Your task to perform on an android device: change the upload size in google photos Image 0: 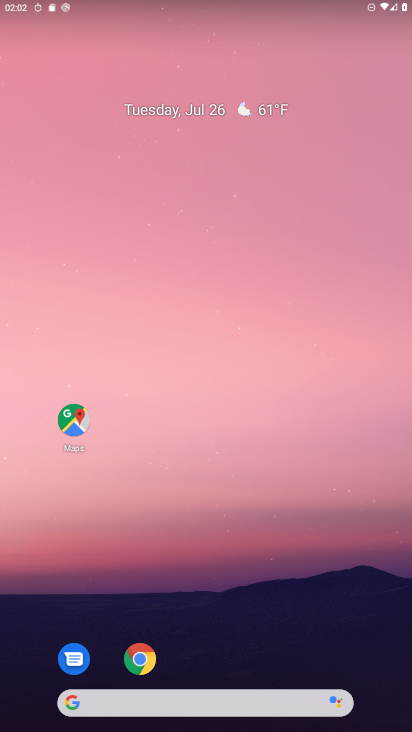
Step 0: drag from (50, 643) to (181, 284)
Your task to perform on an android device: change the upload size in google photos Image 1: 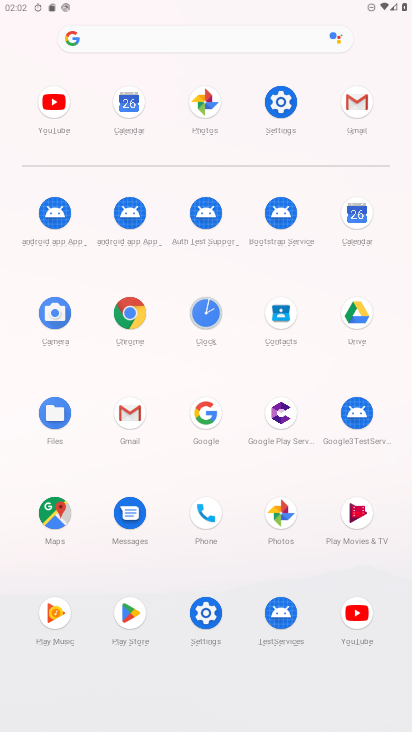
Step 1: click (263, 514)
Your task to perform on an android device: change the upload size in google photos Image 2: 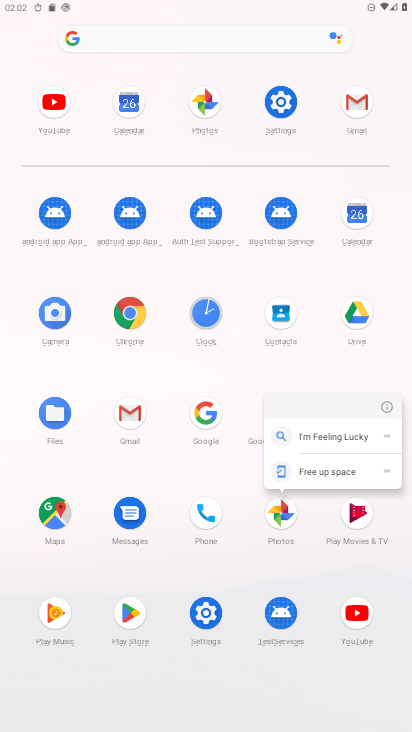
Step 2: click (267, 517)
Your task to perform on an android device: change the upload size in google photos Image 3: 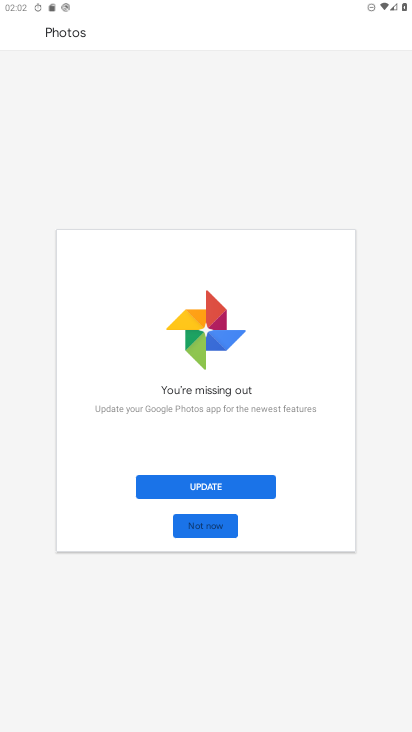
Step 3: click (221, 517)
Your task to perform on an android device: change the upload size in google photos Image 4: 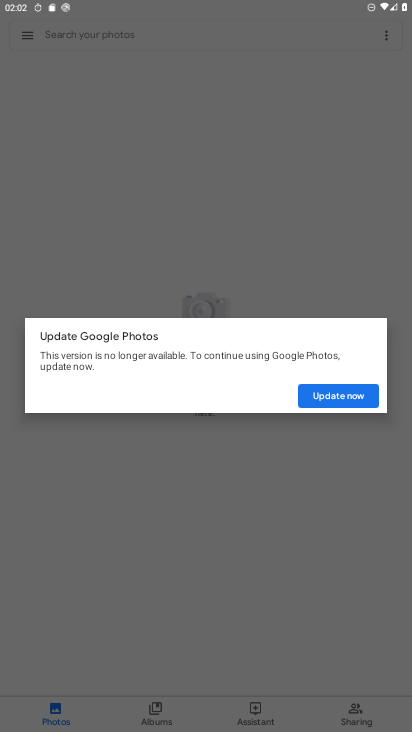
Step 4: click (323, 403)
Your task to perform on an android device: change the upload size in google photos Image 5: 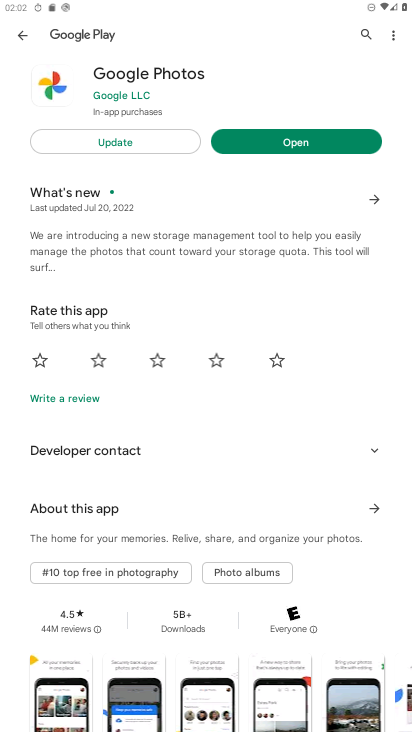
Step 5: click (244, 139)
Your task to perform on an android device: change the upload size in google photos Image 6: 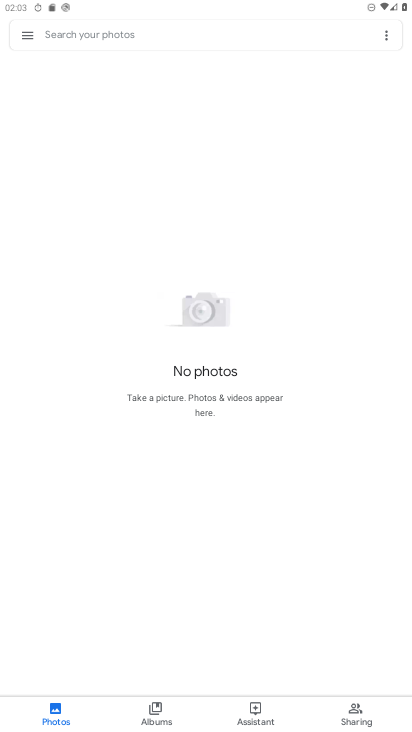
Step 6: click (22, 32)
Your task to perform on an android device: change the upload size in google photos Image 7: 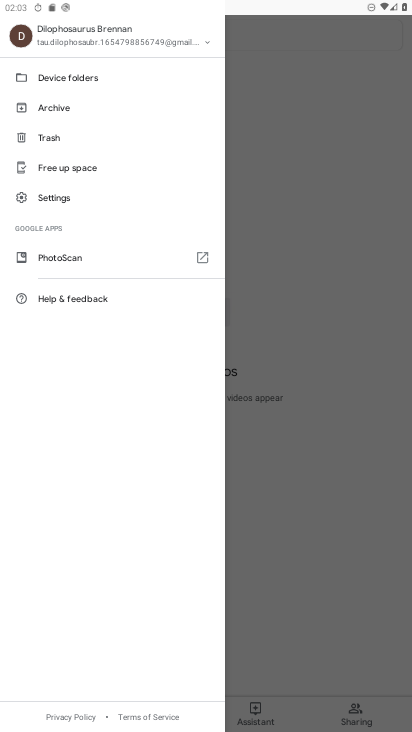
Step 7: click (63, 194)
Your task to perform on an android device: change the upload size in google photos Image 8: 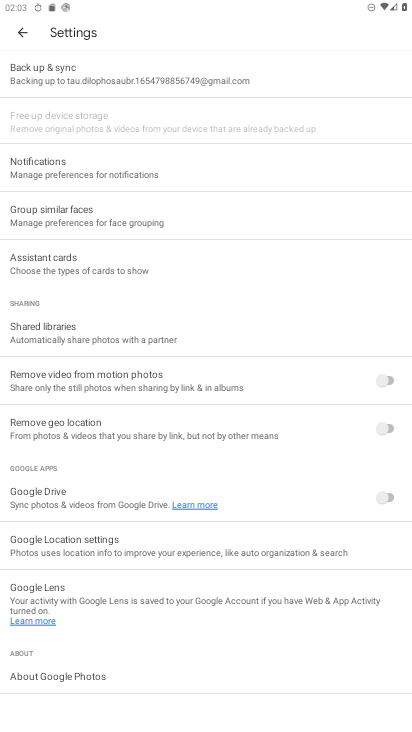
Step 8: click (93, 63)
Your task to perform on an android device: change the upload size in google photos Image 9: 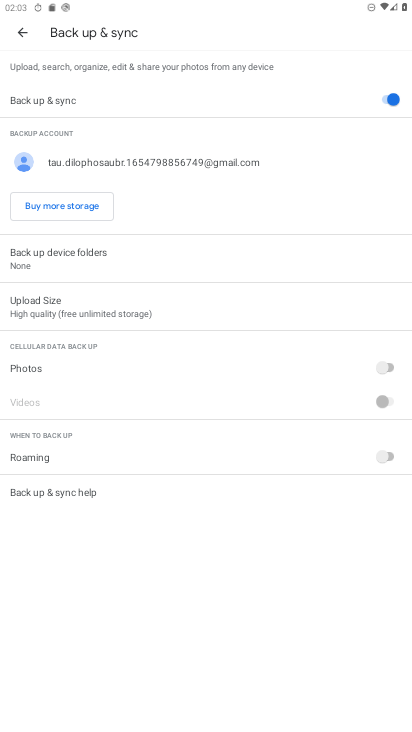
Step 9: click (80, 305)
Your task to perform on an android device: change the upload size in google photos Image 10: 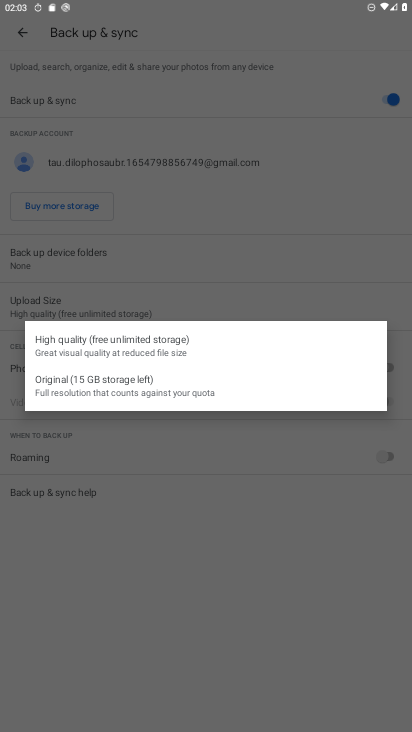
Step 10: click (70, 373)
Your task to perform on an android device: change the upload size in google photos Image 11: 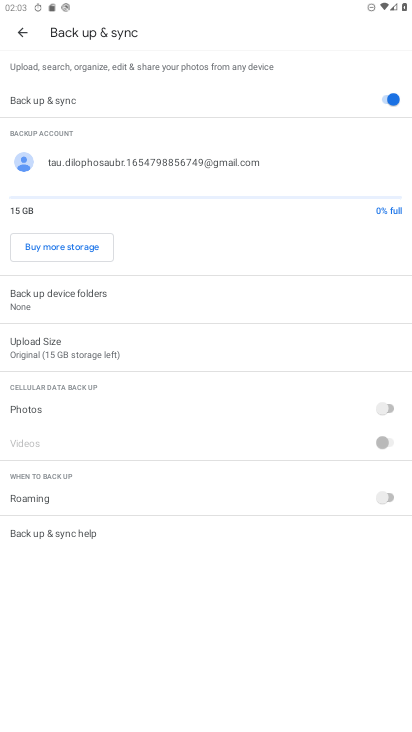
Step 11: task complete